Your task to perform on an android device: Go to accessibility settings Image 0: 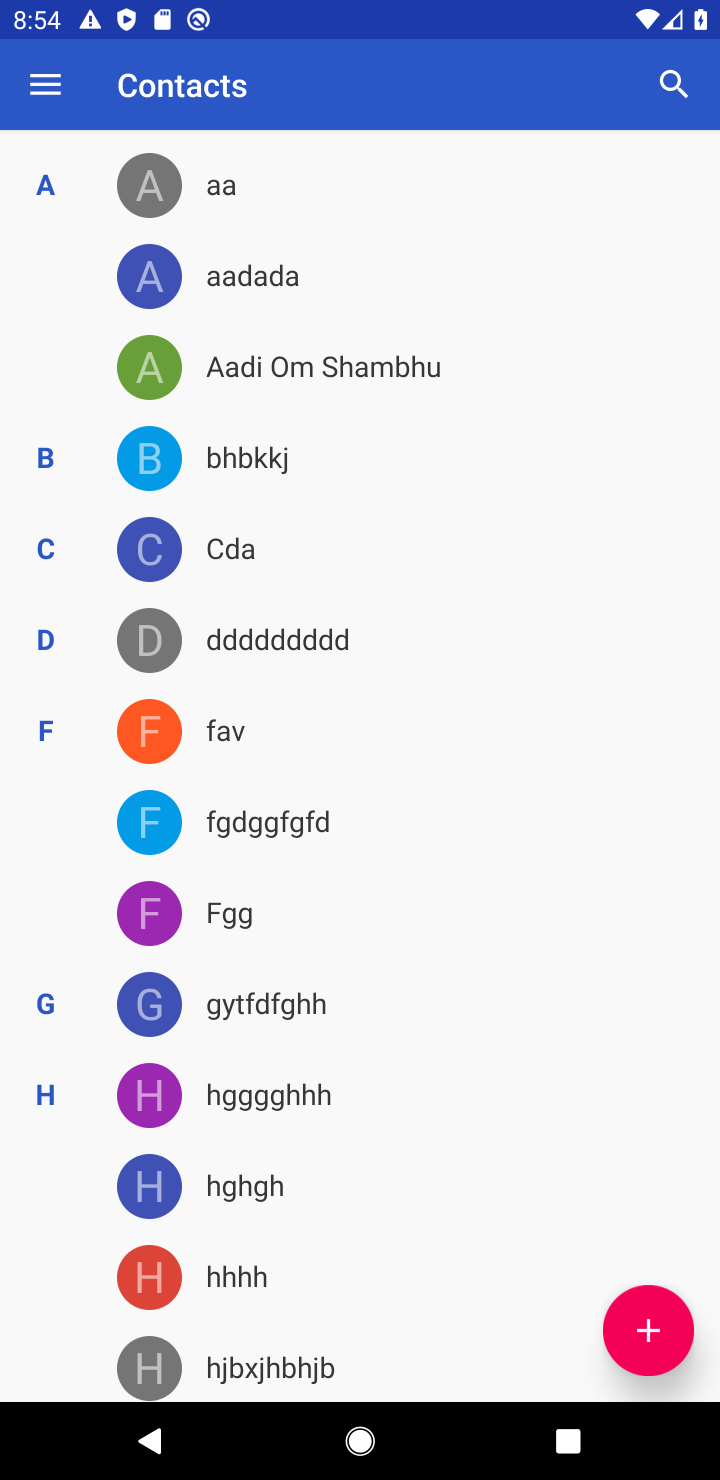
Step 0: press home button
Your task to perform on an android device: Go to accessibility settings Image 1: 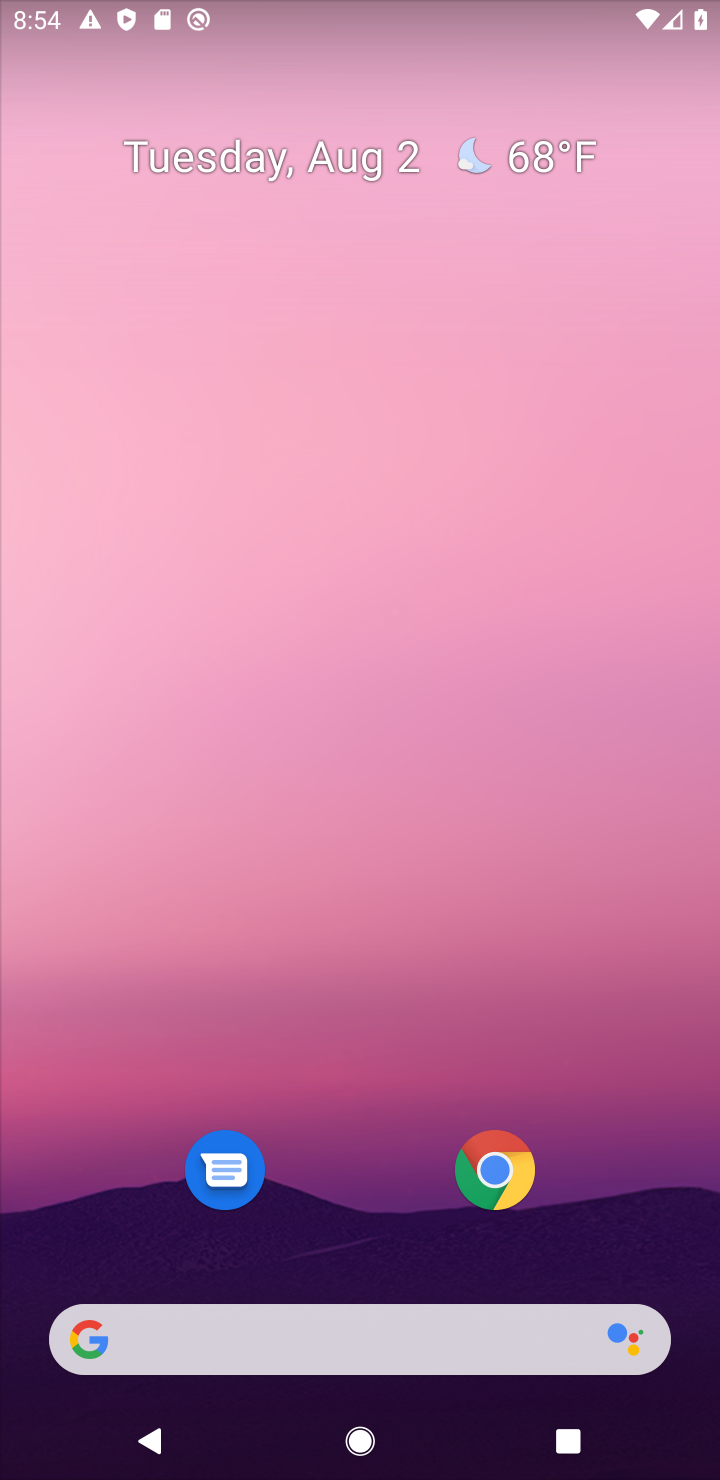
Step 1: drag from (286, 395) to (286, 325)
Your task to perform on an android device: Go to accessibility settings Image 2: 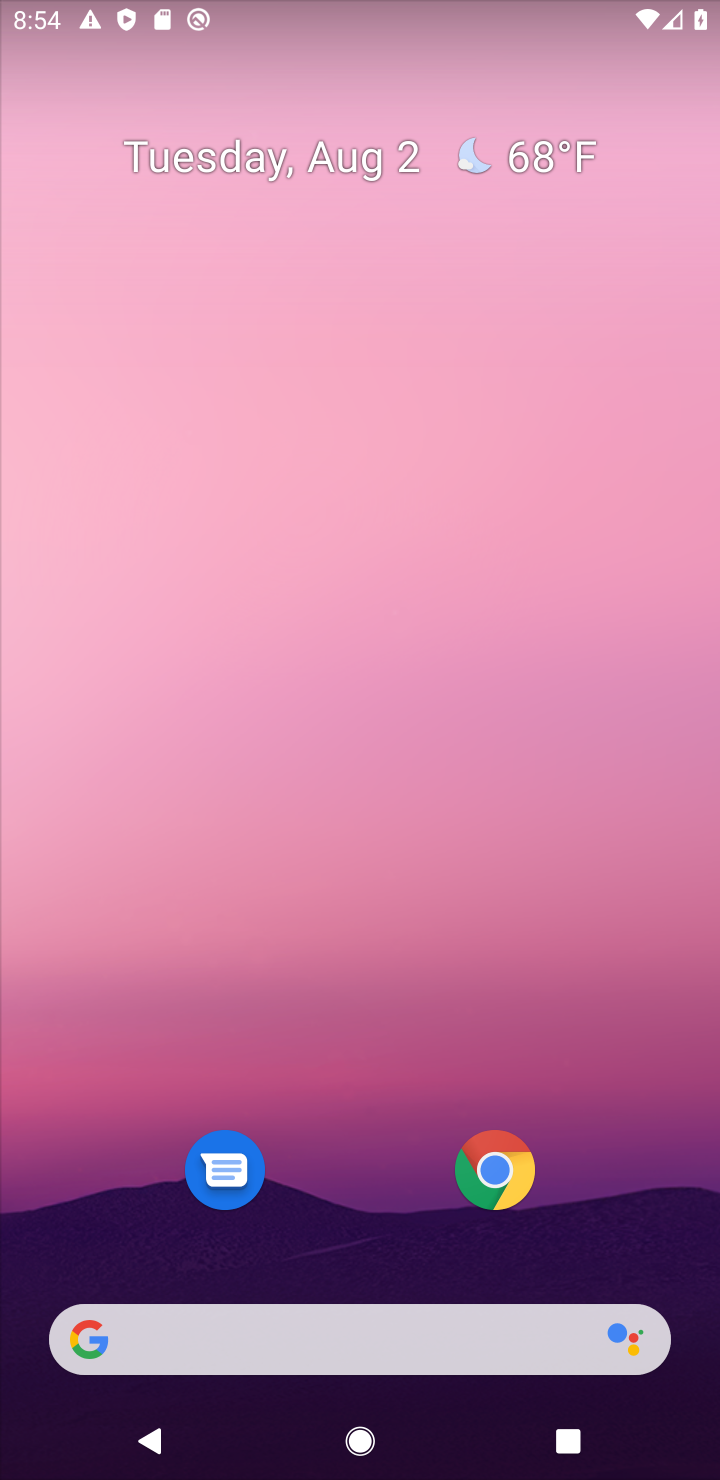
Step 2: drag from (370, 954) to (384, 187)
Your task to perform on an android device: Go to accessibility settings Image 3: 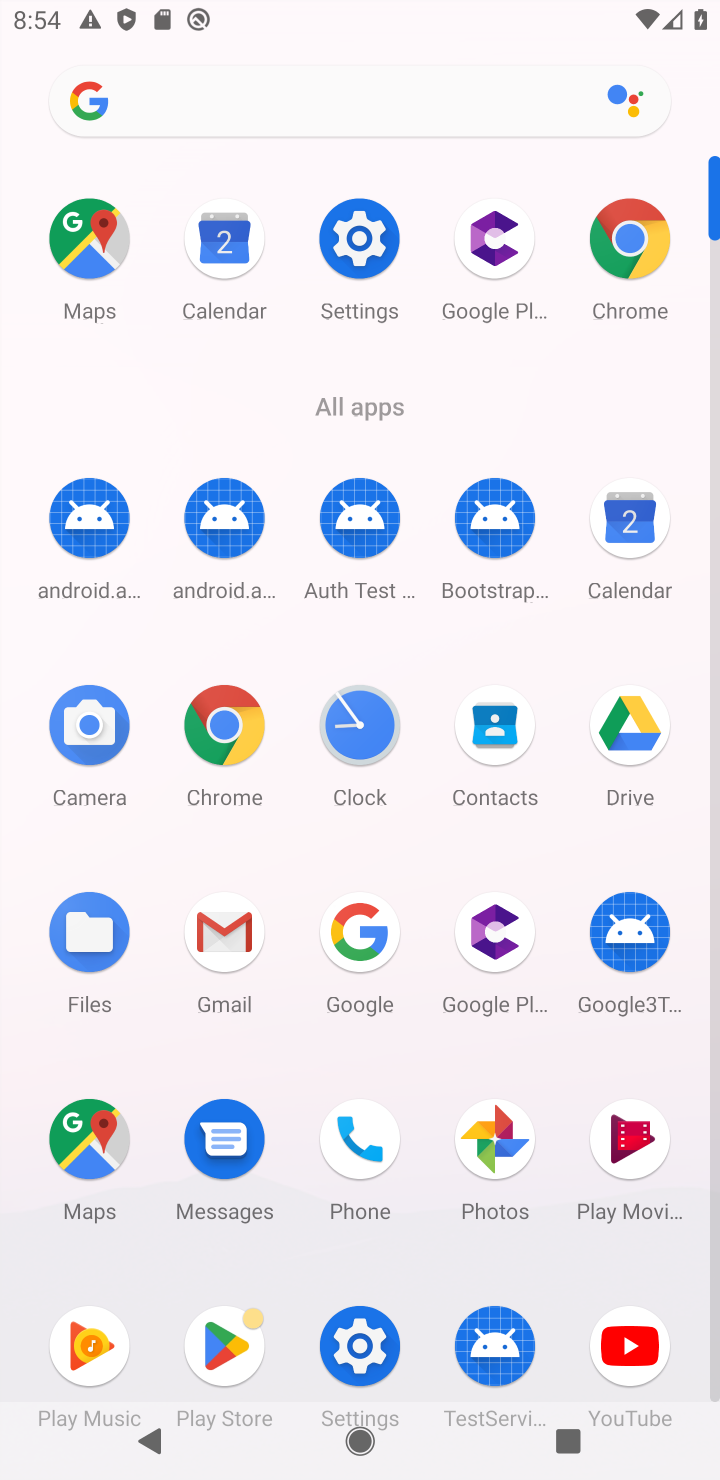
Step 3: click (353, 226)
Your task to perform on an android device: Go to accessibility settings Image 4: 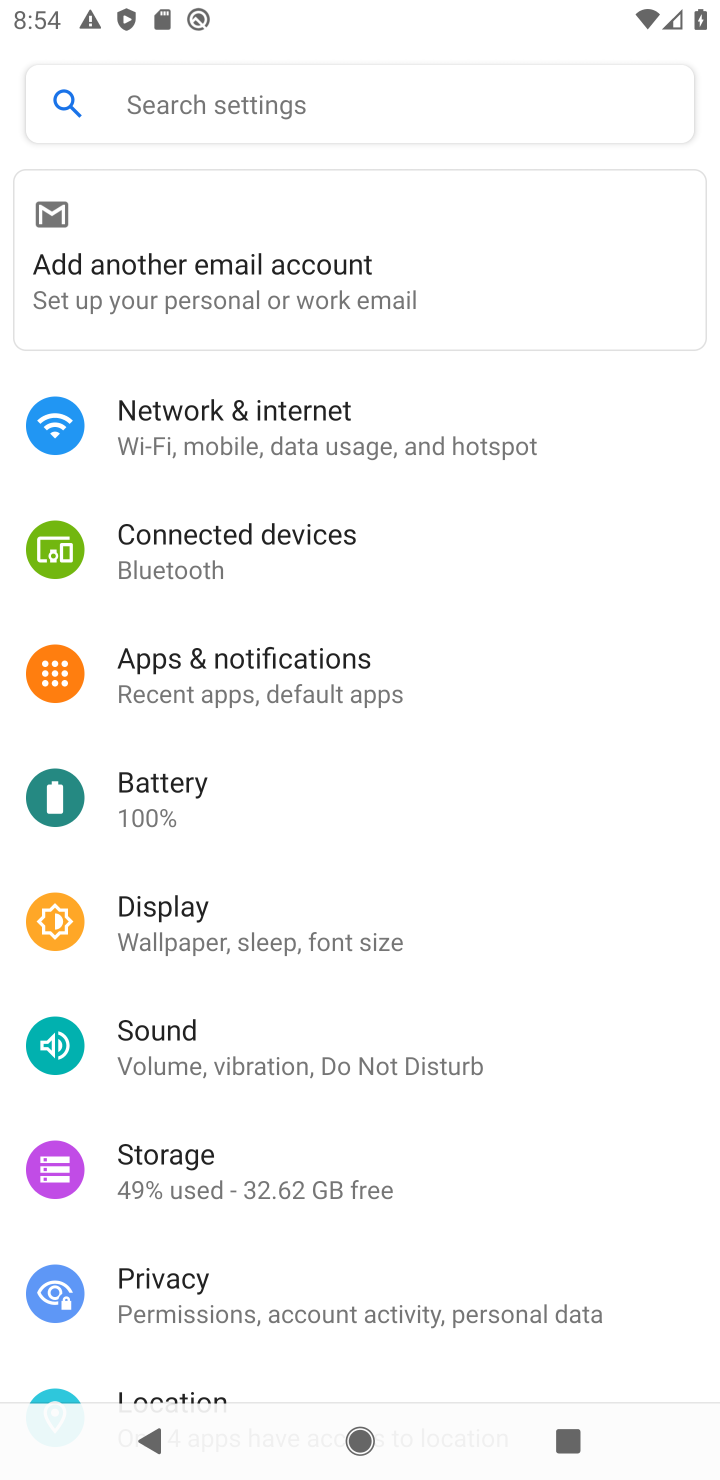
Step 4: drag from (214, 1166) to (456, 305)
Your task to perform on an android device: Go to accessibility settings Image 5: 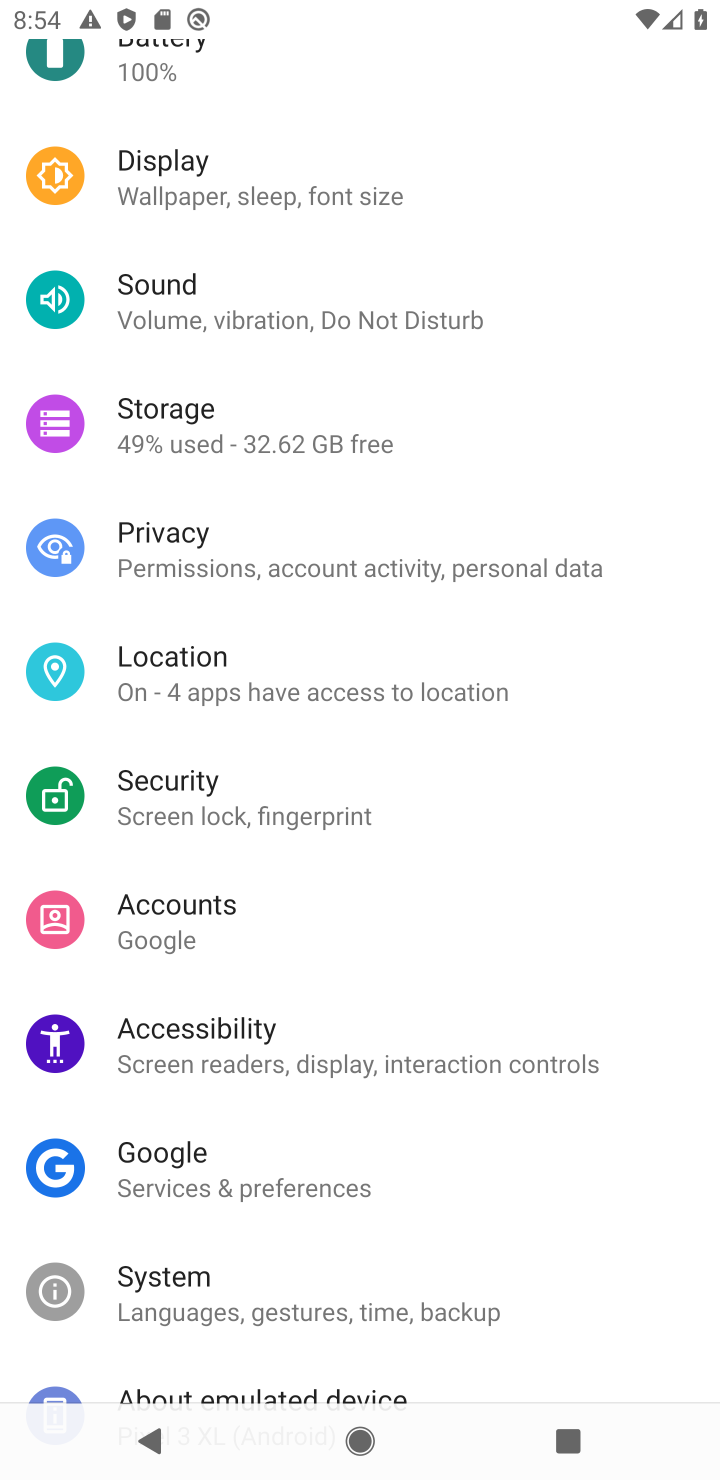
Step 5: click (246, 1029)
Your task to perform on an android device: Go to accessibility settings Image 6: 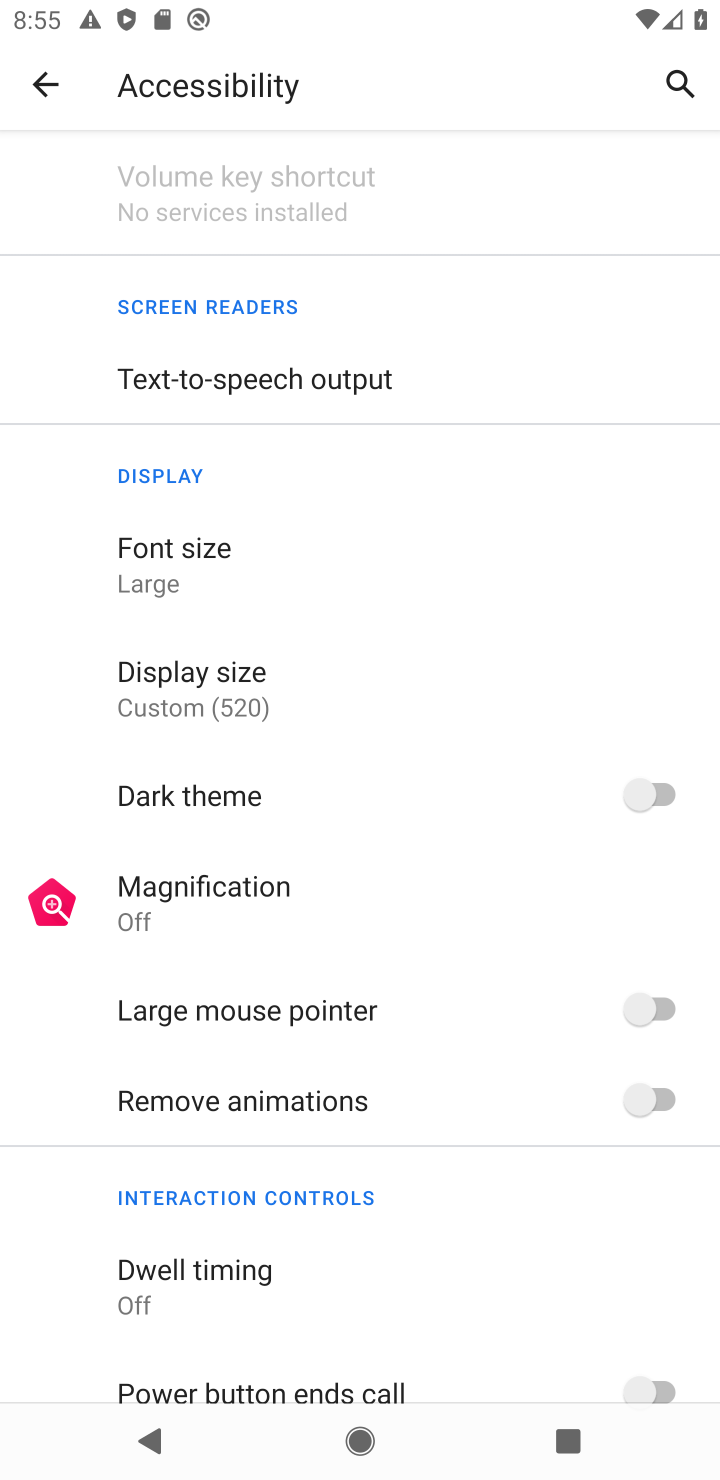
Step 6: task complete